Your task to perform on an android device: turn on javascript in the chrome app Image 0: 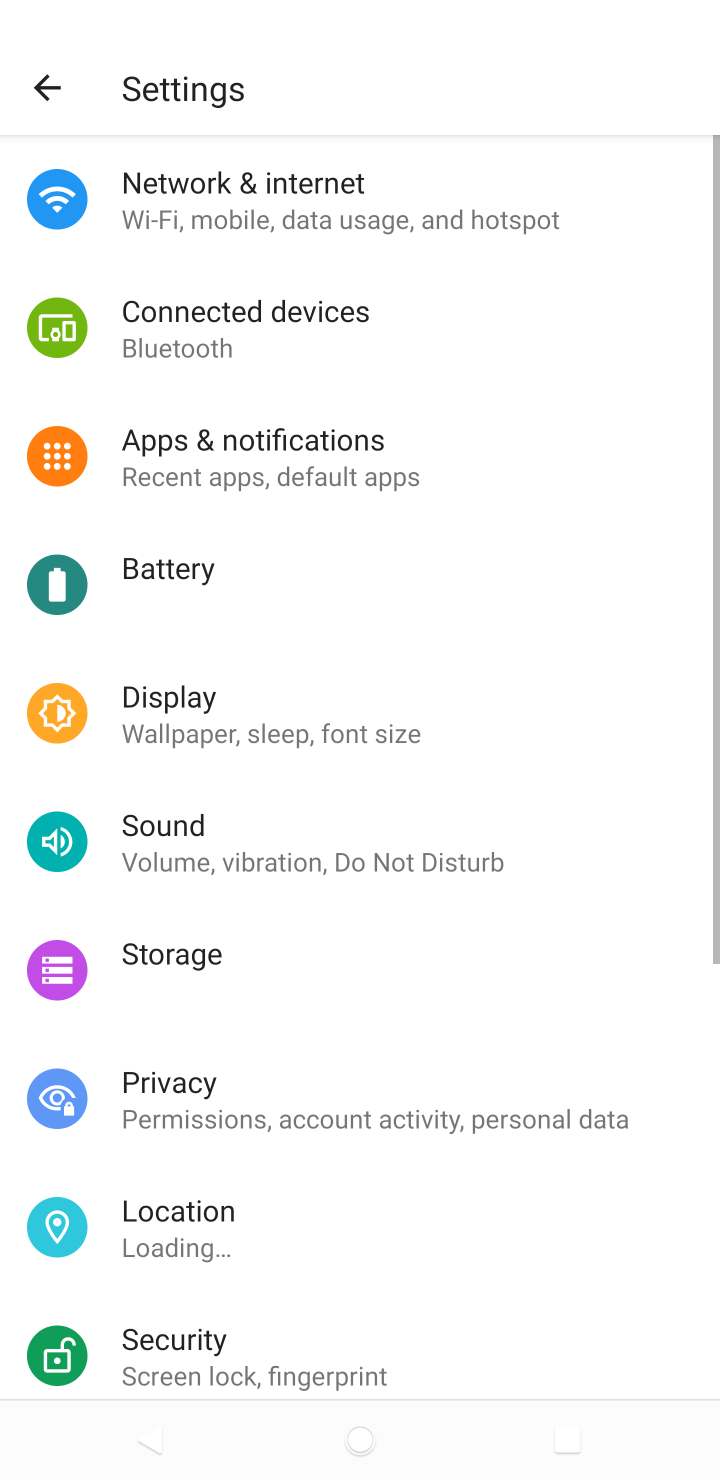
Step 0: press home button
Your task to perform on an android device: turn on javascript in the chrome app Image 1: 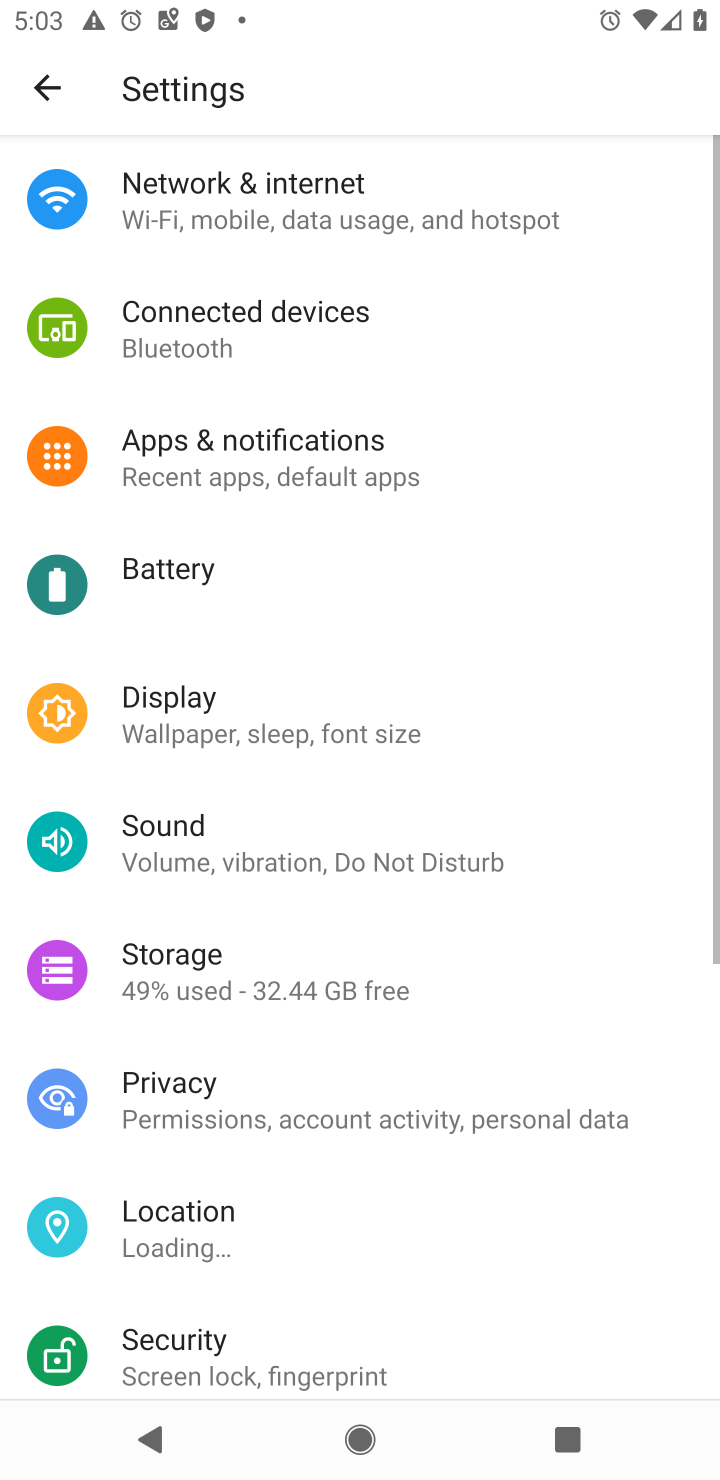
Step 1: click (403, 86)
Your task to perform on an android device: turn on javascript in the chrome app Image 2: 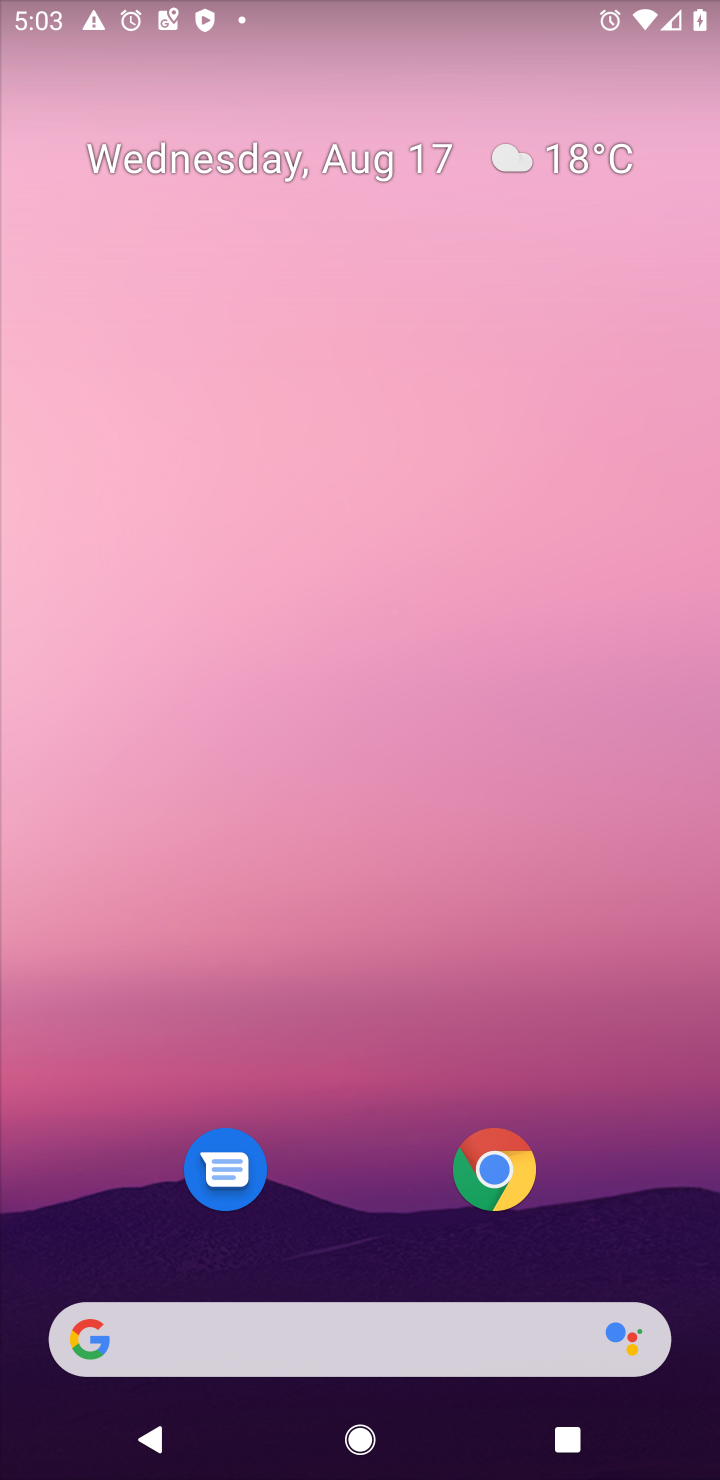
Step 2: click (503, 1185)
Your task to perform on an android device: turn on javascript in the chrome app Image 3: 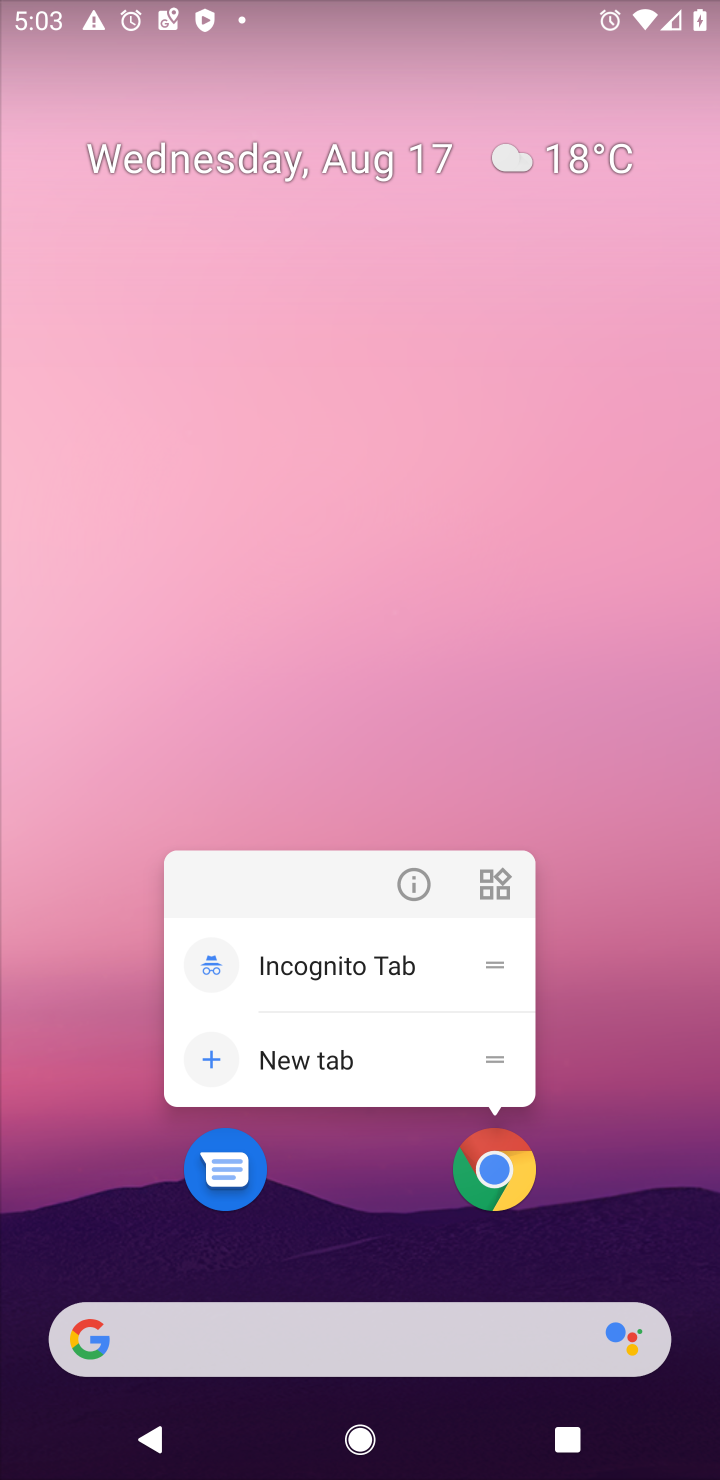
Step 3: click (652, 1209)
Your task to perform on an android device: turn on javascript in the chrome app Image 4: 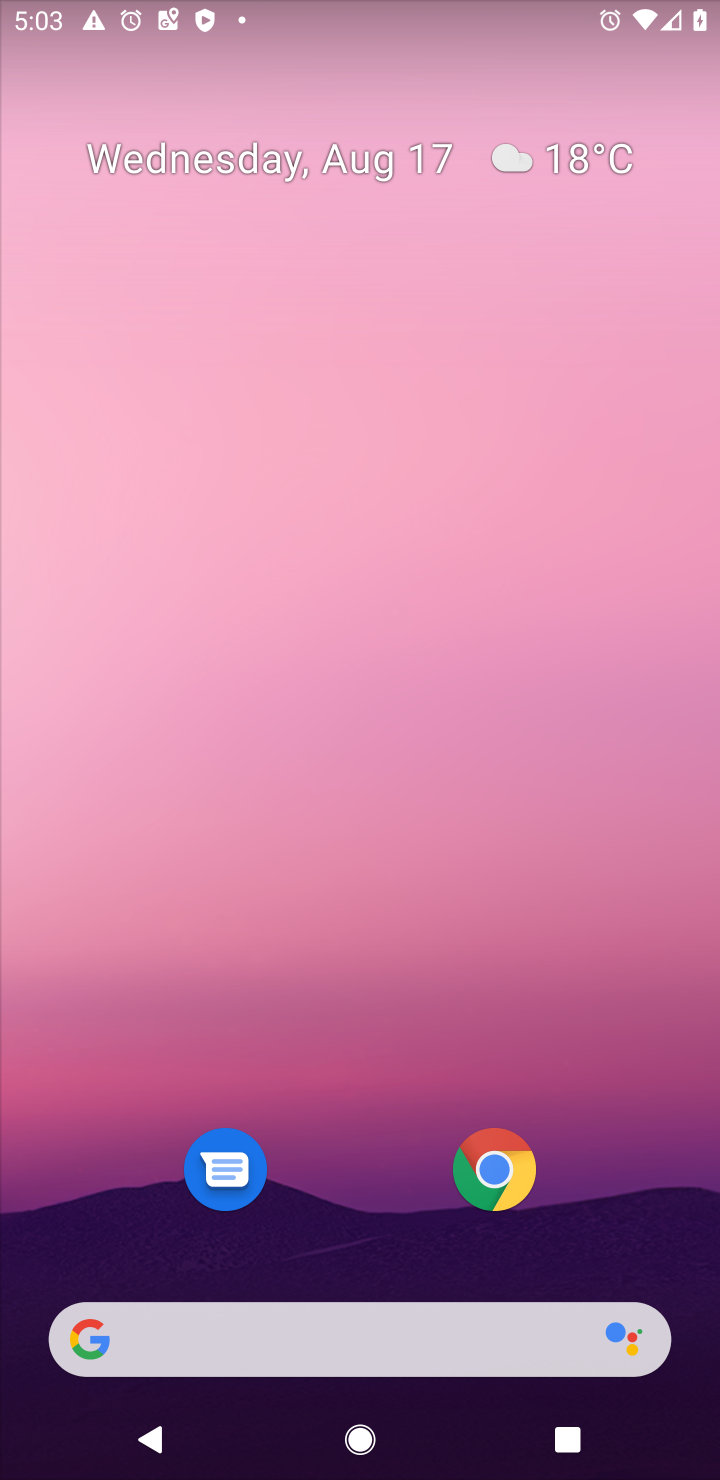
Step 4: drag from (625, 1216) to (568, 136)
Your task to perform on an android device: turn on javascript in the chrome app Image 5: 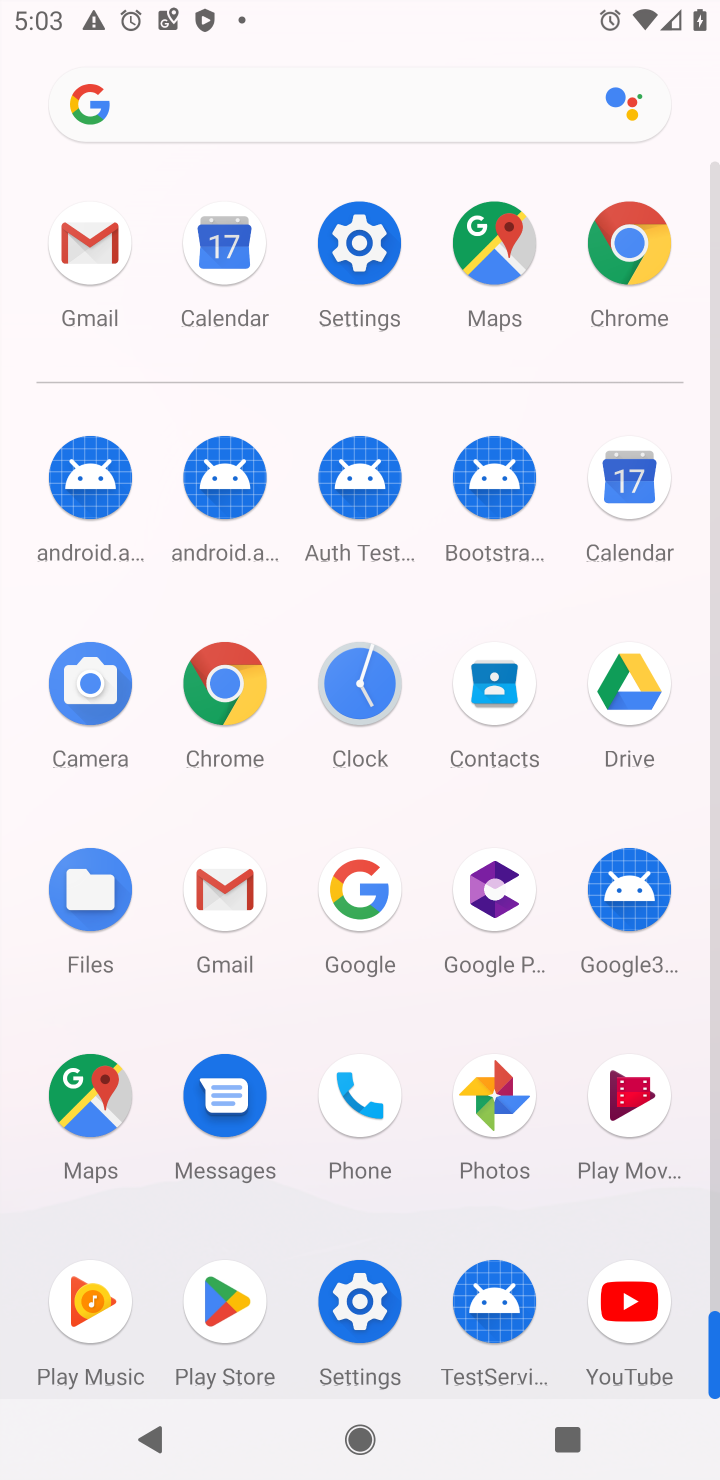
Step 5: click (212, 657)
Your task to perform on an android device: turn on javascript in the chrome app Image 6: 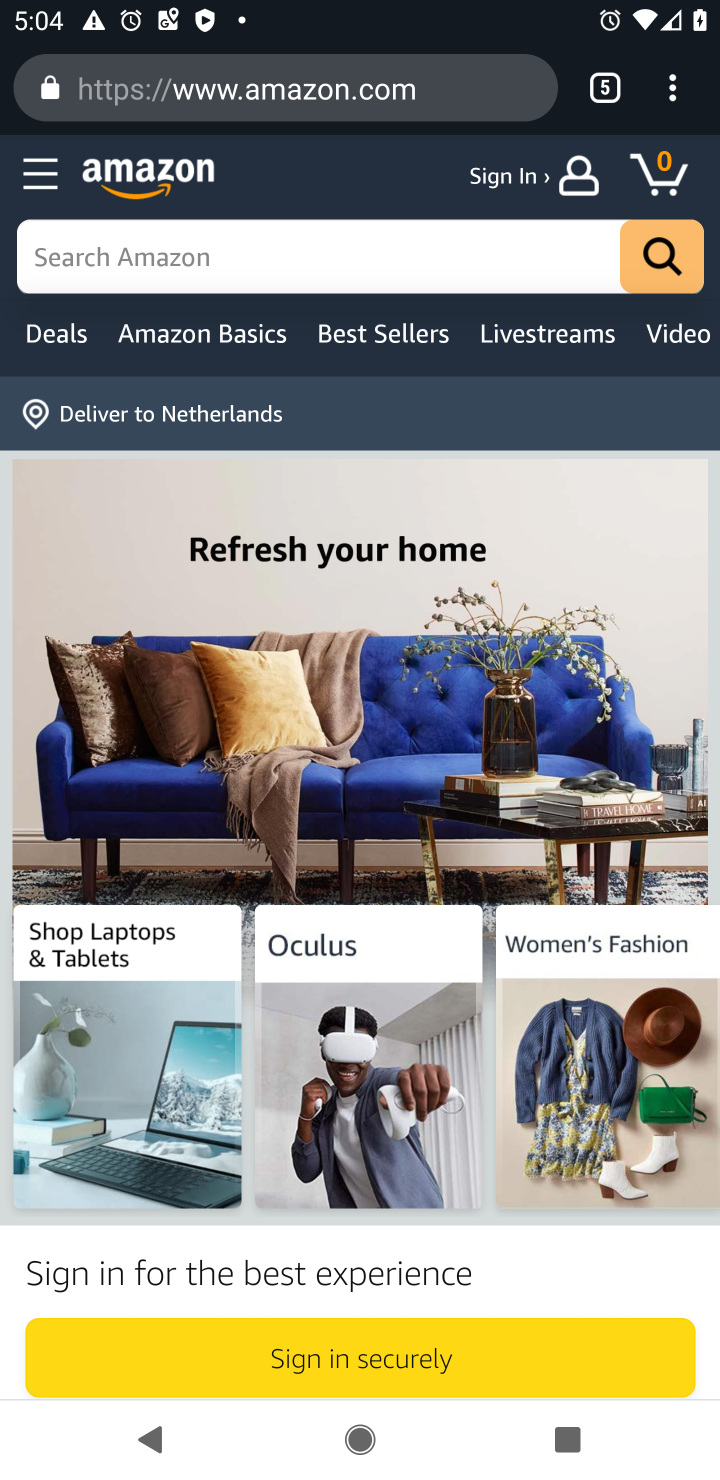
Step 6: drag from (680, 89) to (361, 1125)
Your task to perform on an android device: turn on javascript in the chrome app Image 7: 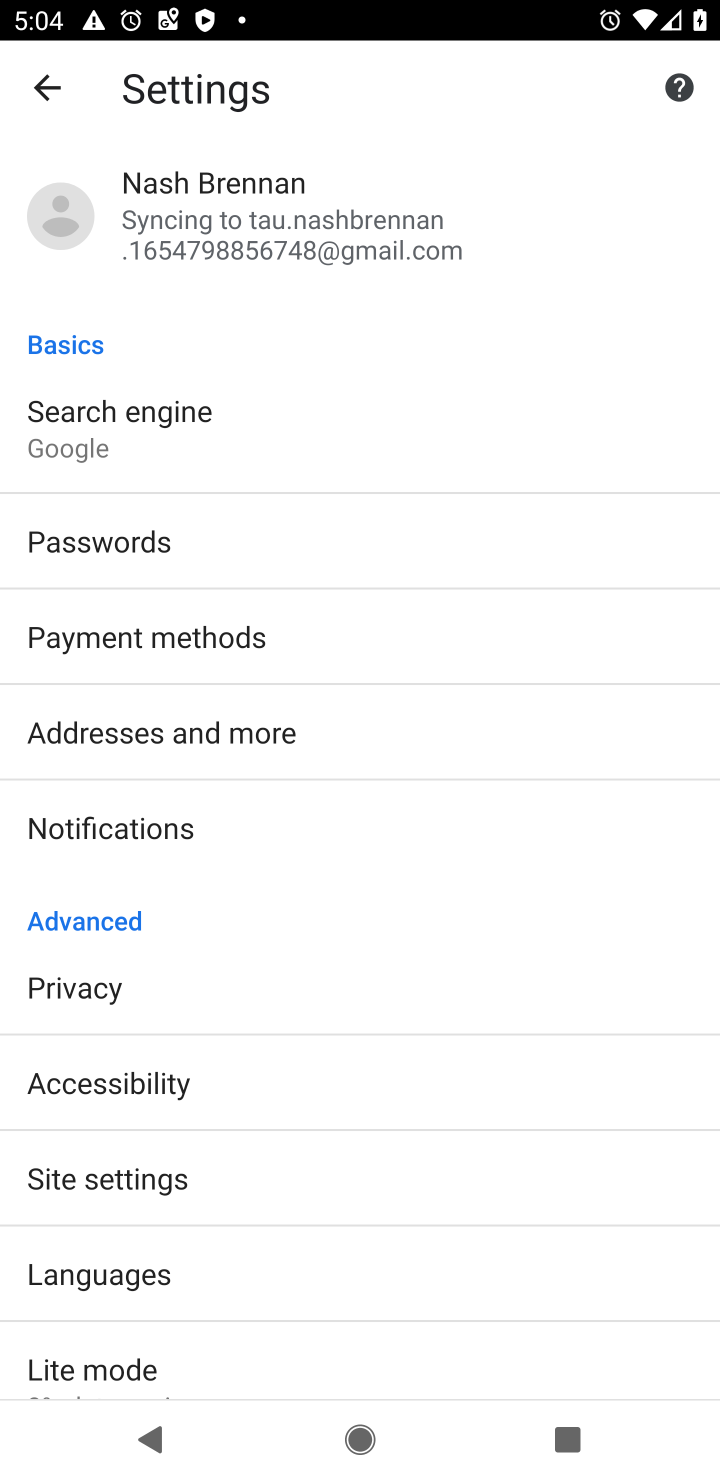
Step 7: click (118, 1190)
Your task to perform on an android device: turn on javascript in the chrome app Image 8: 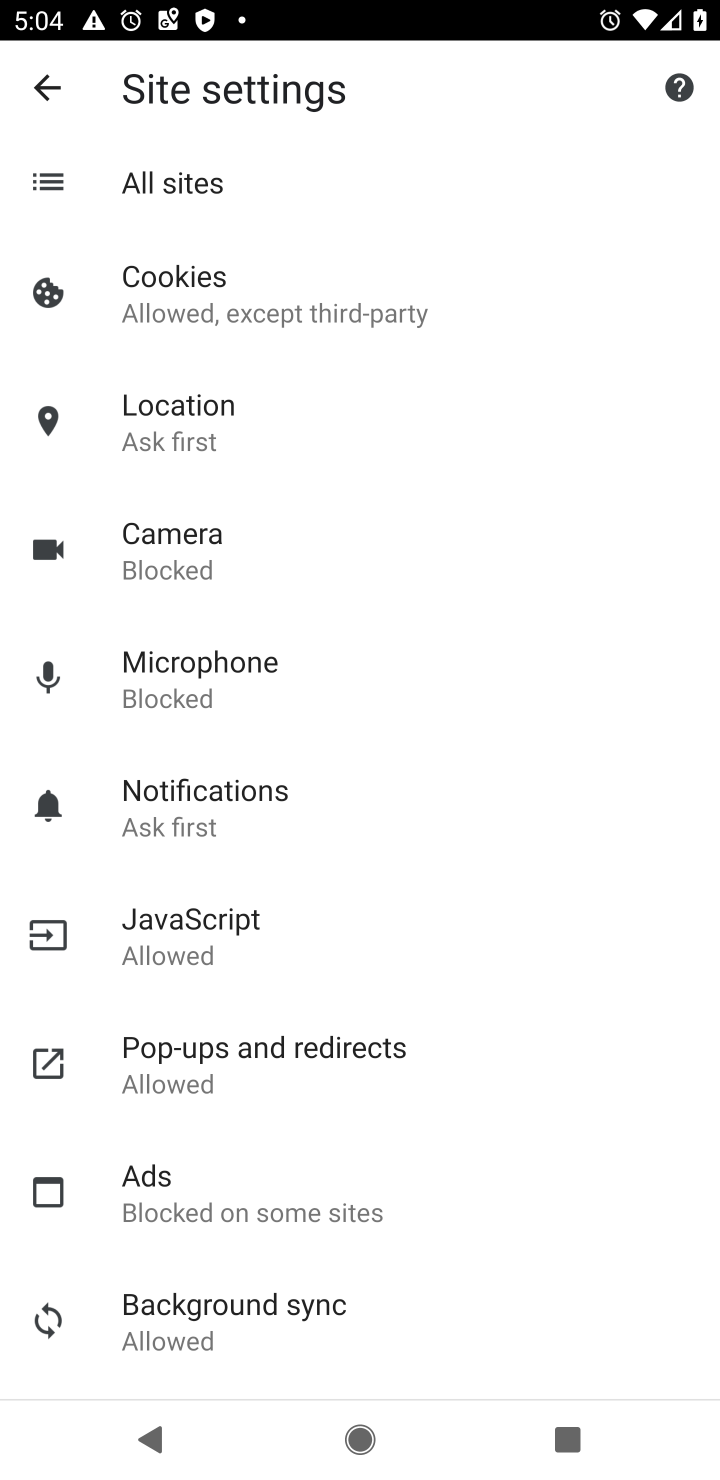
Step 8: click (202, 943)
Your task to perform on an android device: turn on javascript in the chrome app Image 9: 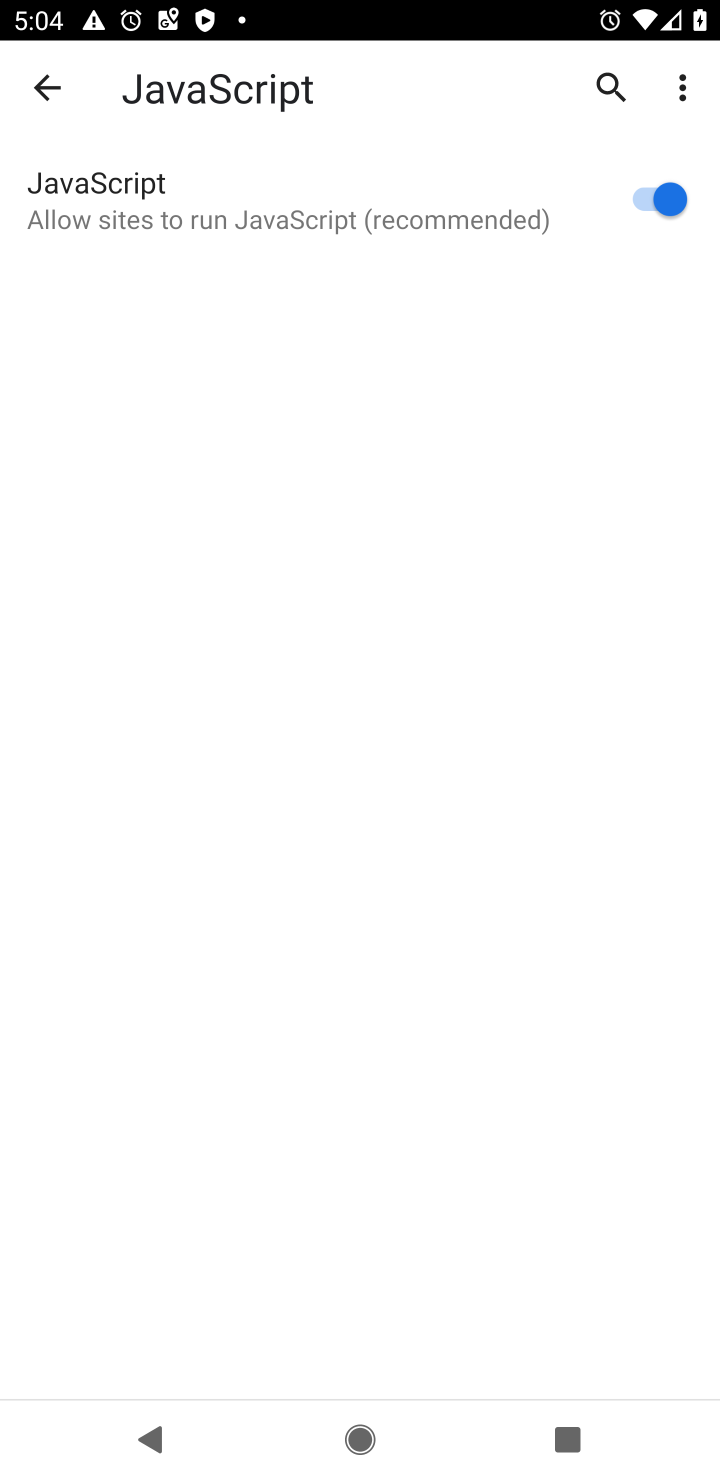
Step 9: task complete